Your task to perform on an android device: turn pop-ups on in chrome Image 0: 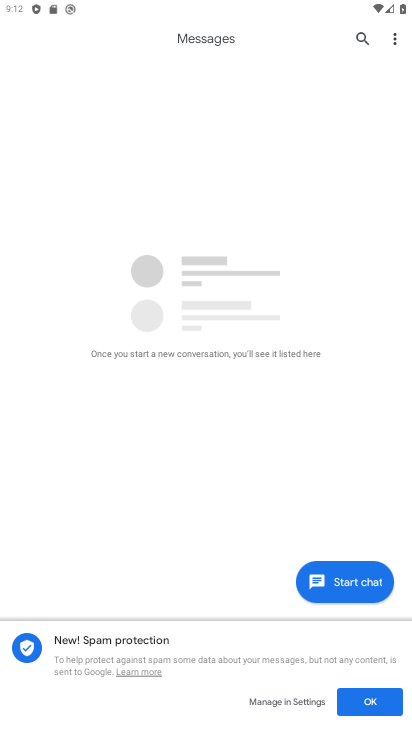
Step 0: press home button
Your task to perform on an android device: turn pop-ups on in chrome Image 1: 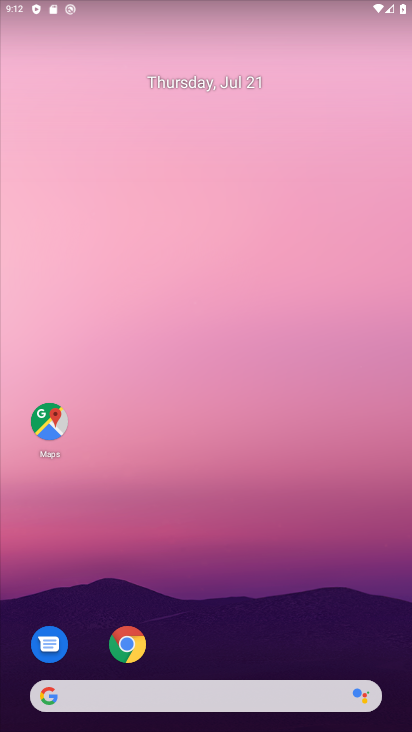
Step 1: click (127, 645)
Your task to perform on an android device: turn pop-ups on in chrome Image 2: 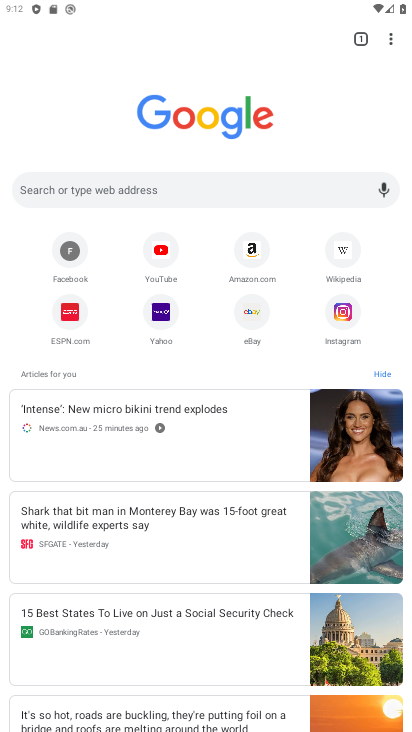
Step 2: click (383, 45)
Your task to perform on an android device: turn pop-ups on in chrome Image 3: 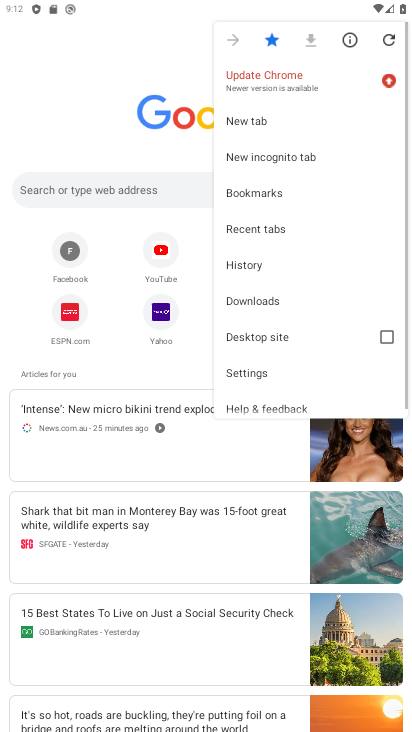
Step 3: click (256, 376)
Your task to perform on an android device: turn pop-ups on in chrome Image 4: 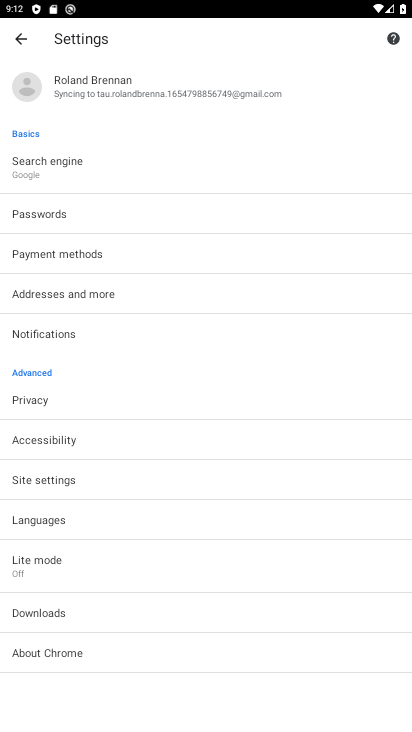
Step 4: click (50, 479)
Your task to perform on an android device: turn pop-ups on in chrome Image 5: 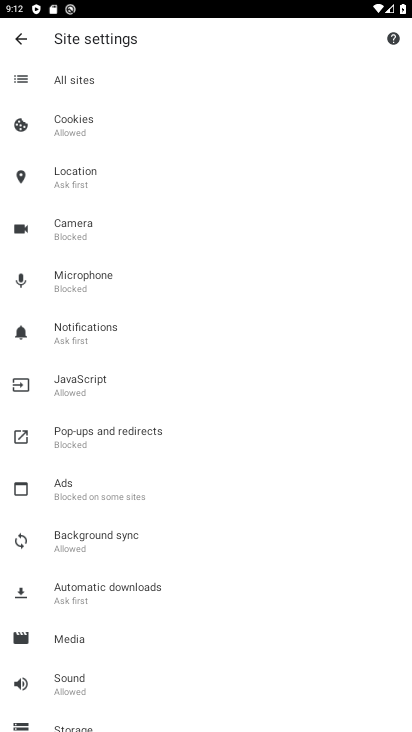
Step 5: click (101, 422)
Your task to perform on an android device: turn pop-ups on in chrome Image 6: 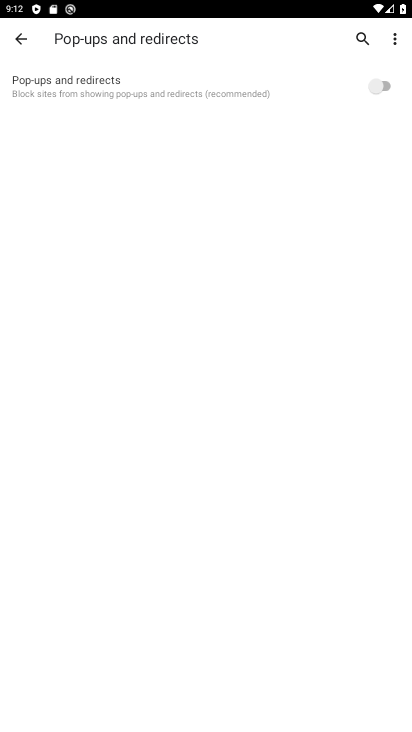
Step 6: click (381, 84)
Your task to perform on an android device: turn pop-ups on in chrome Image 7: 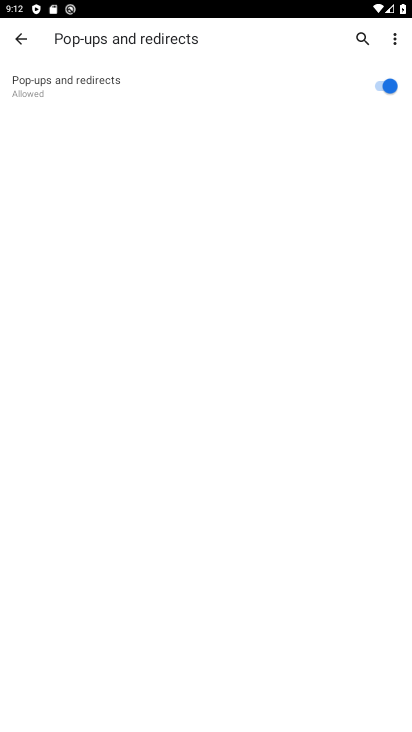
Step 7: task complete